Your task to perform on an android device: turn on the 12-hour format for clock Image 0: 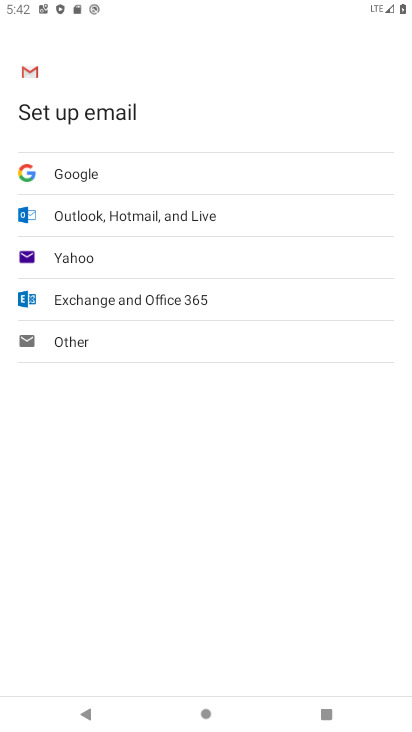
Step 0: press home button
Your task to perform on an android device: turn on the 12-hour format for clock Image 1: 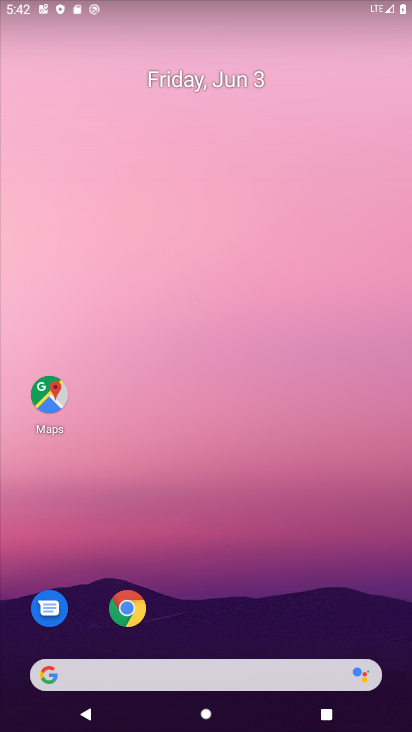
Step 1: drag from (282, 512) to (307, 174)
Your task to perform on an android device: turn on the 12-hour format for clock Image 2: 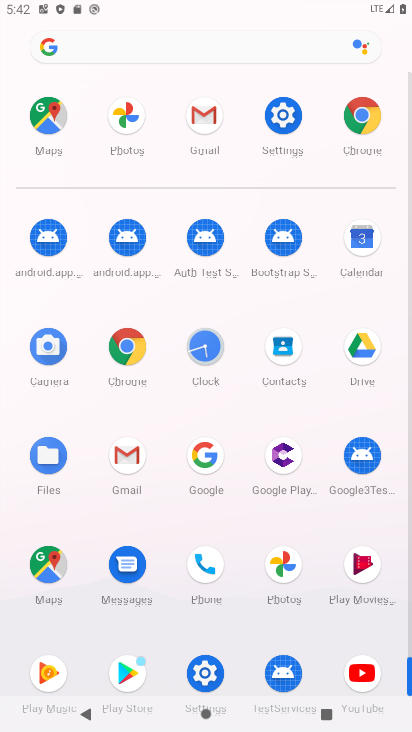
Step 2: click (200, 342)
Your task to perform on an android device: turn on the 12-hour format for clock Image 3: 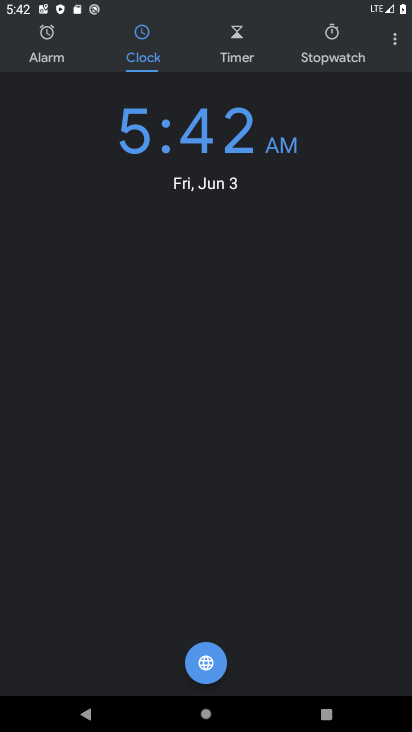
Step 3: click (404, 33)
Your task to perform on an android device: turn on the 12-hour format for clock Image 4: 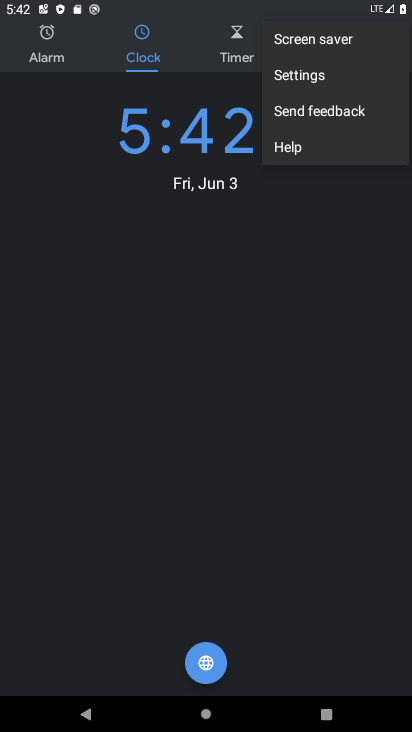
Step 4: click (329, 69)
Your task to perform on an android device: turn on the 12-hour format for clock Image 5: 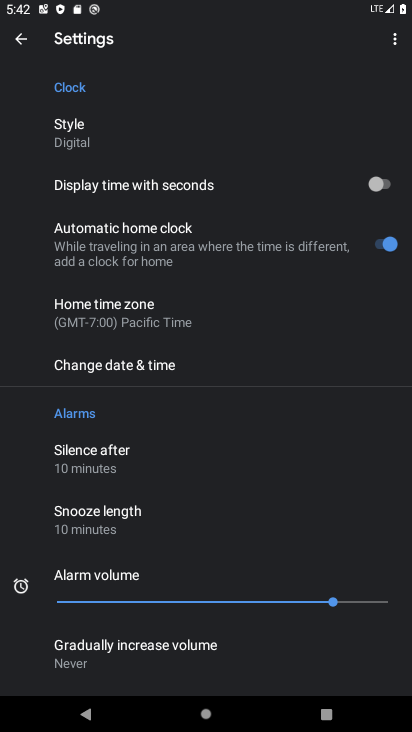
Step 5: drag from (370, 667) to (393, 369)
Your task to perform on an android device: turn on the 12-hour format for clock Image 6: 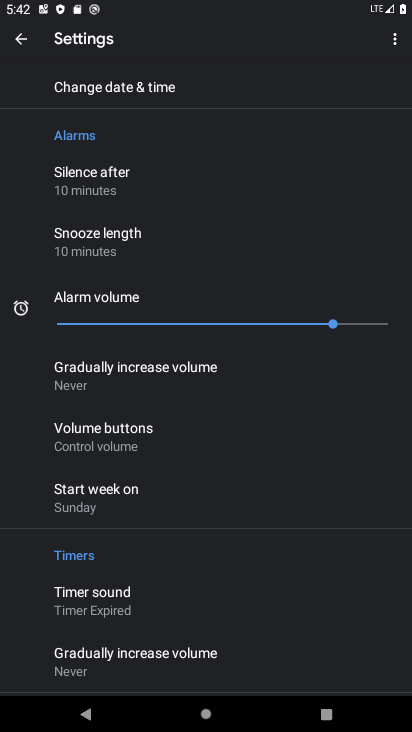
Step 6: drag from (358, 567) to (406, 302)
Your task to perform on an android device: turn on the 12-hour format for clock Image 7: 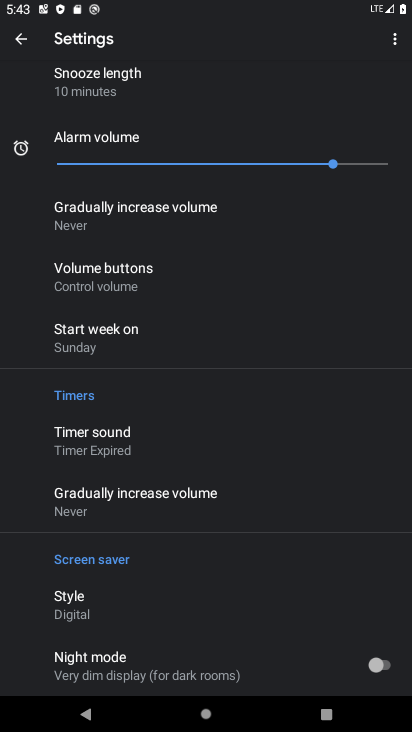
Step 7: drag from (282, 261) to (376, 632)
Your task to perform on an android device: turn on the 12-hour format for clock Image 8: 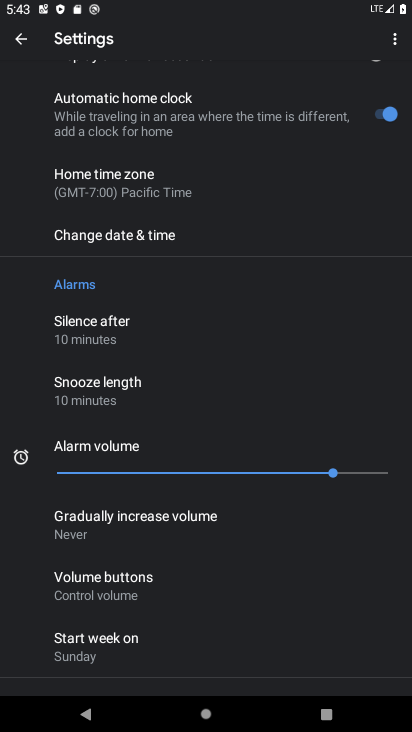
Step 8: drag from (230, 140) to (334, 649)
Your task to perform on an android device: turn on the 12-hour format for clock Image 9: 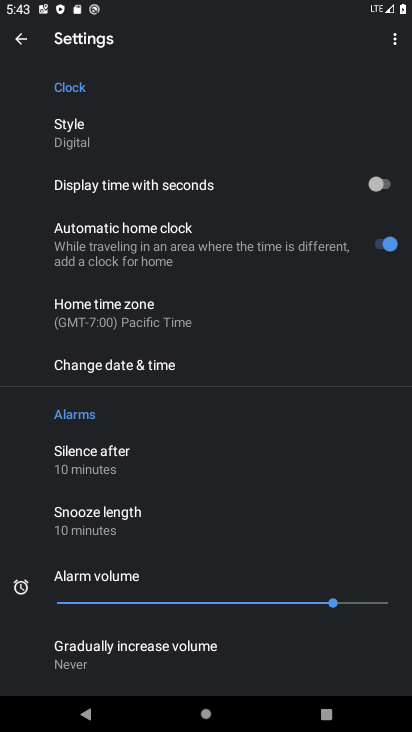
Step 9: click (210, 363)
Your task to perform on an android device: turn on the 12-hour format for clock Image 10: 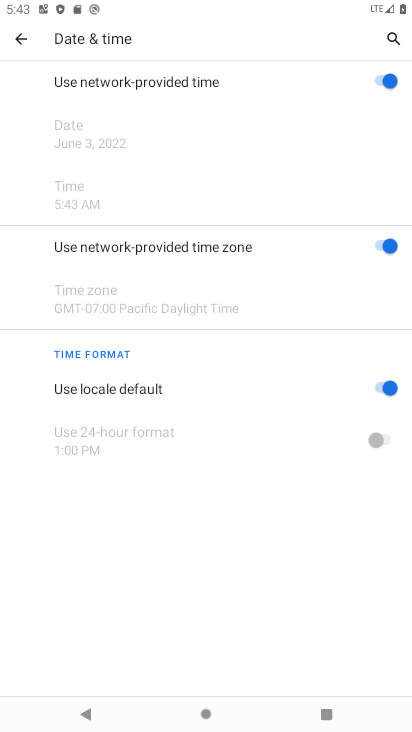
Step 10: task complete